Your task to perform on an android device: Go to eBay Image 0: 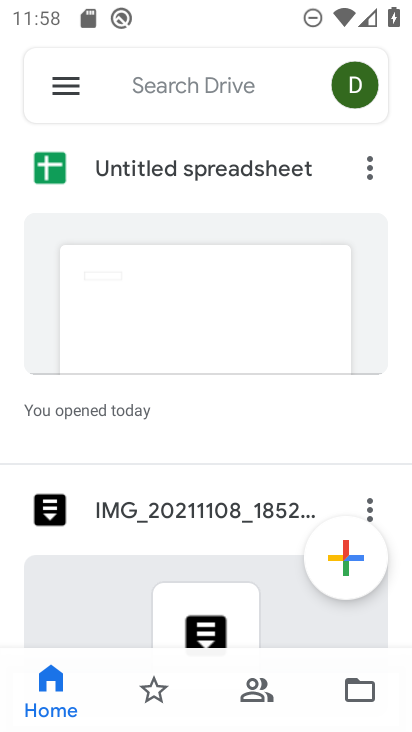
Step 0: press home button
Your task to perform on an android device: Go to eBay Image 1: 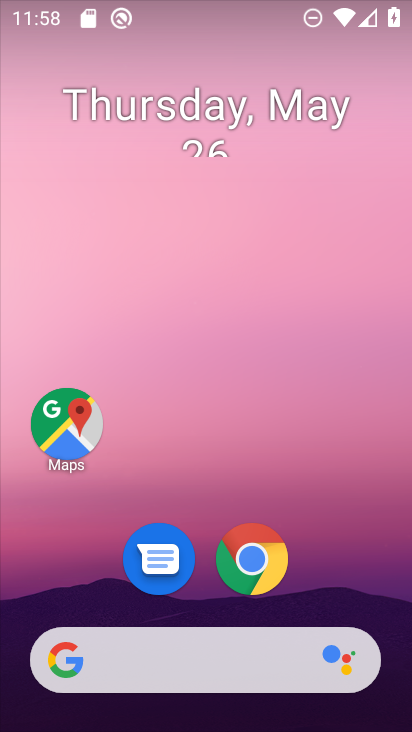
Step 1: click (276, 559)
Your task to perform on an android device: Go to eBay Image 2: 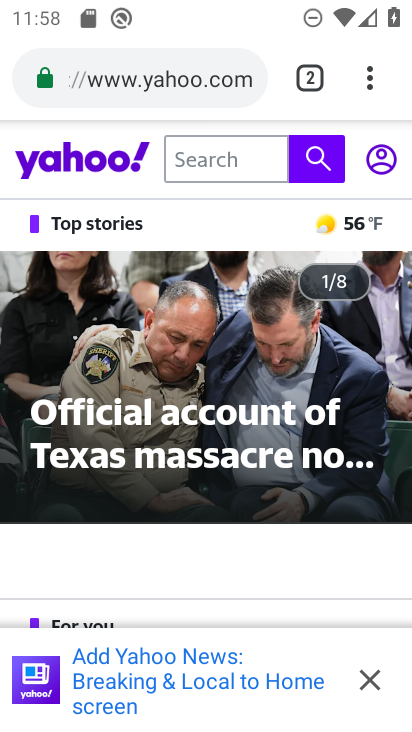
Step 2: click (309, 79)
Your task to perform on an android device: Go to eBay Image 3: 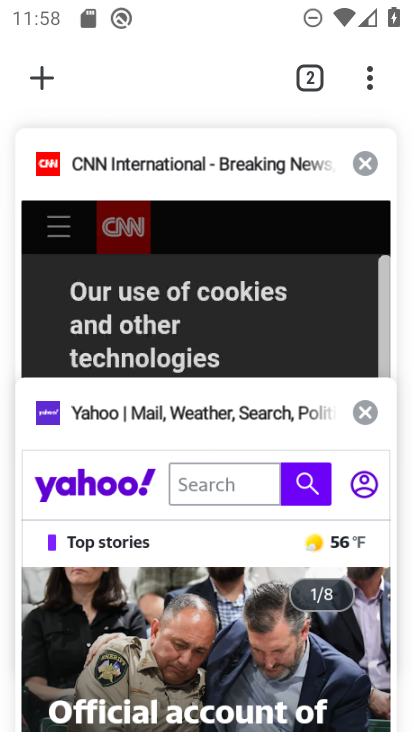
Step 3: click (39, 77)
Your task to perform on an android device: Go to eBay Image 4: 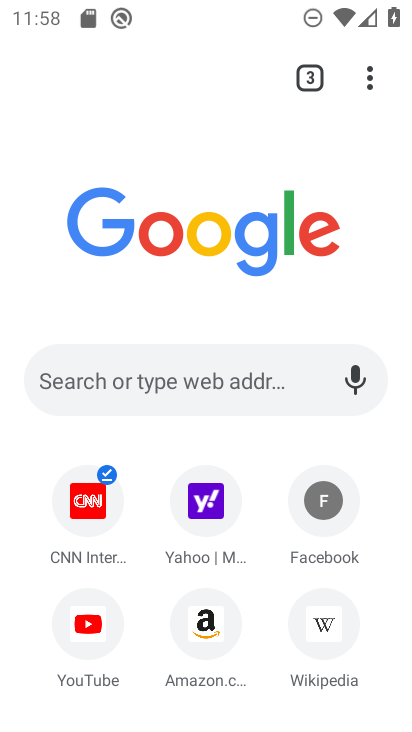
Step 4: click (172, 391)
Your task to perform on an android device: Go to eBay Image 5: 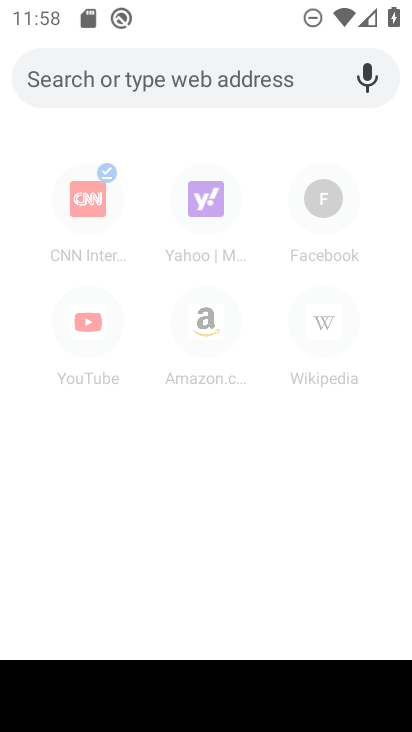
Step 5: type "ebay.com"
Your task to perform on an android device: Go to eBay Image 6: 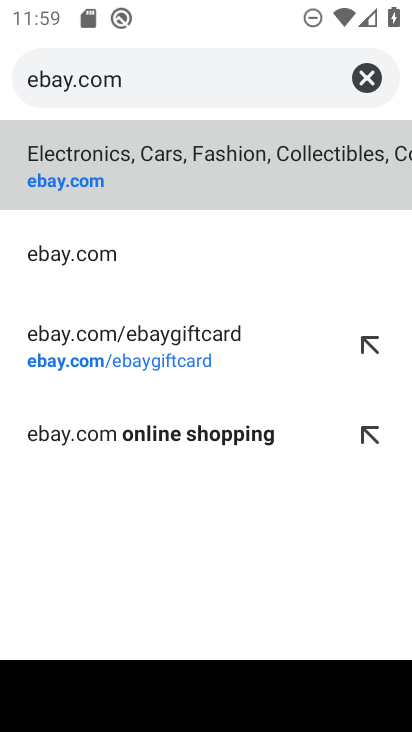
Step 6: click (173, 146)
Your task to perform on an android device: Go to eBay Image 7: 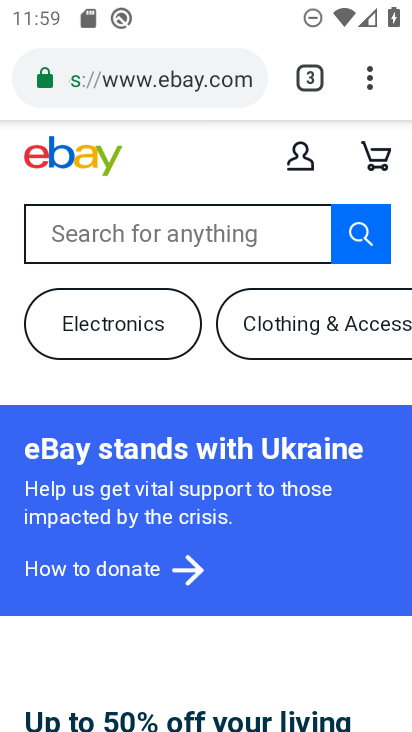
Step 7: task complete